Your task to perform on an android device: Open notification settings Image 0: 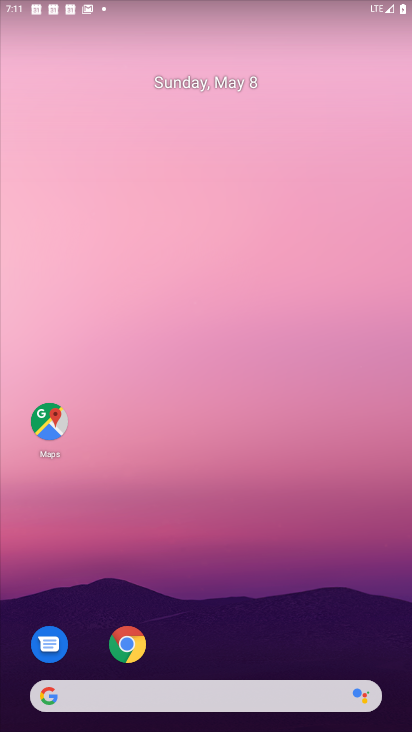
Step 0: click (270, 451)
Your task to perform on an android device: Open notification settings Image 1: 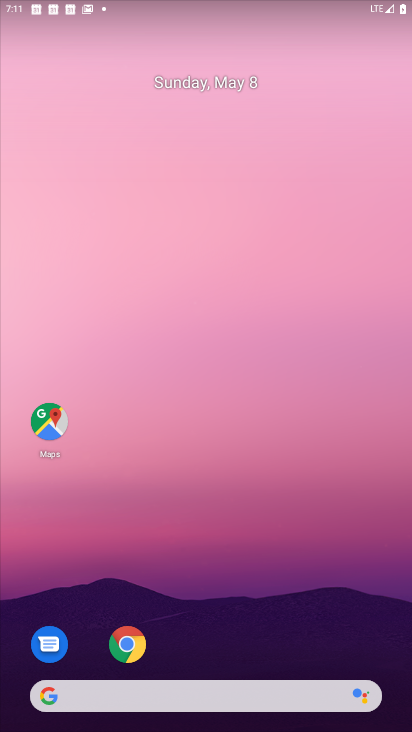
Step 1: drag from (241, 613) to (229, 63)
Your task to perform on an android device: Open notification settings Image 2: 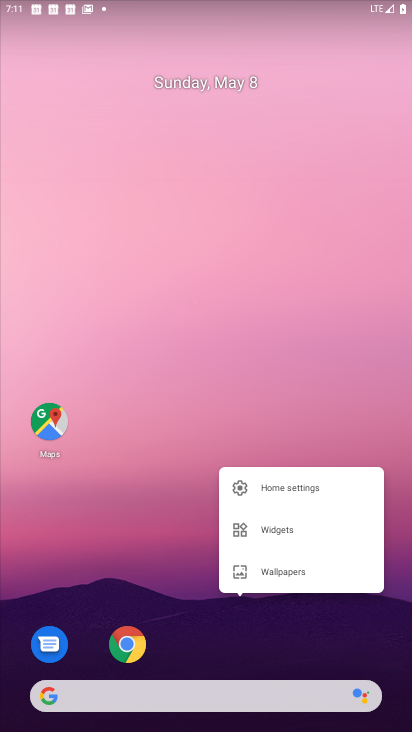
Step 2: click (225, 164)
Your task to perform on an android device: Open notification settings Image 3: 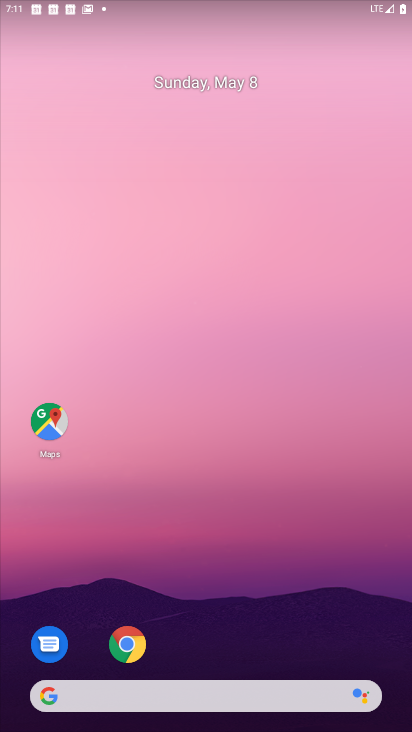
Step 3: drag from (282, 628) to (246, 127)
Your task to perform on an android device: Open notification settings Image 4: 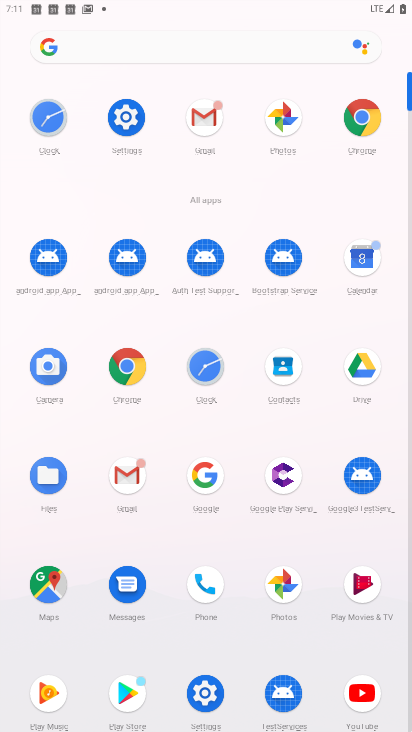
Step 4: click (199, 706)
Your task to perform on an android device: Open notification settings Image 5: 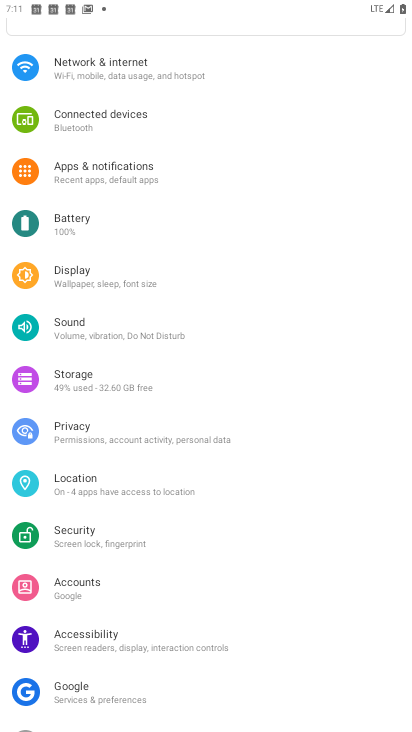
Step 5: click (148, 172)
Your task to perform on an android device: Open notification settings Image 6: 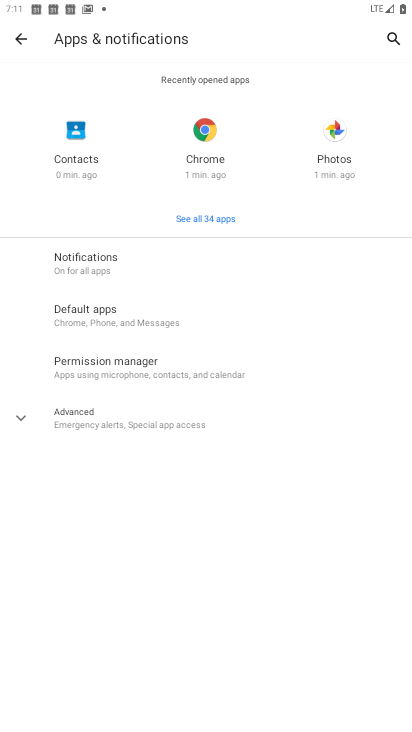
Step 6: click (158, 279)
Your task to perform on an android device: Open notification settings Image 7: 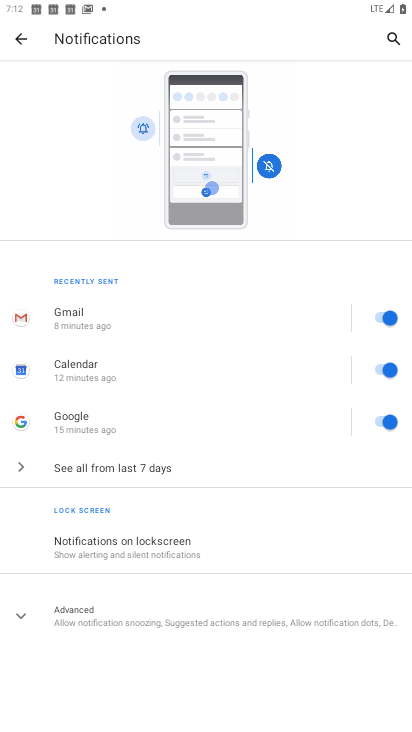
Step 7: task complete